Your task to perform on an android device: choose inbox layout in the gmail app Image 0: 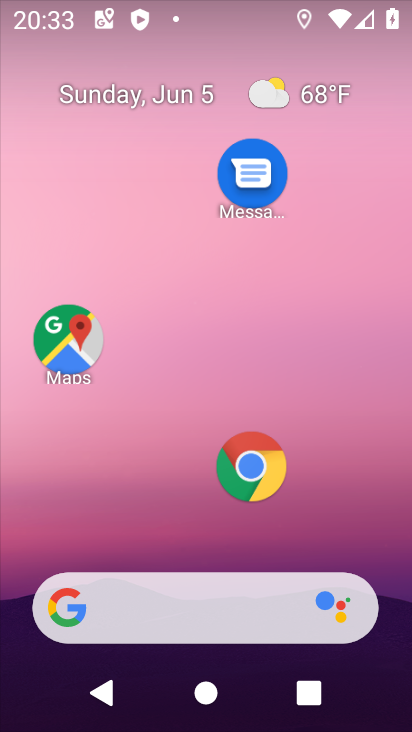
Step 0: drag from (205, 482) to (222, 329)
Your task to perform on an android device: choose inbox layout in the gmail app Image 1: 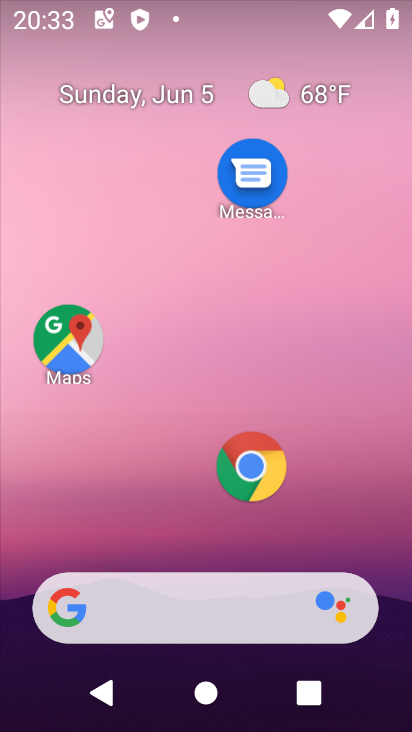
Step 1: drag from (197, 488) to (226, 88)
Your task to perform on an android device: choose inbox layout in the gmail app Image 2: 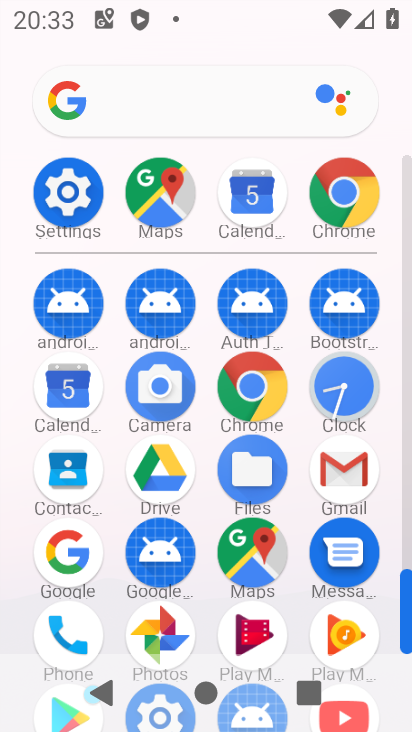
Step 2: click (348, 474)
Your task to perform on an android device: choose inbox layout in the gmail app Image 3: 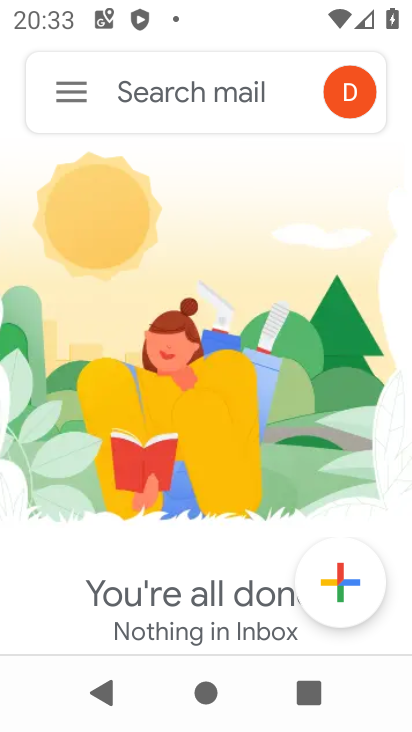
Step 3: click (70, 92)
Your task to perform on an android device: choose inbox layout in the gmail app Image 4: 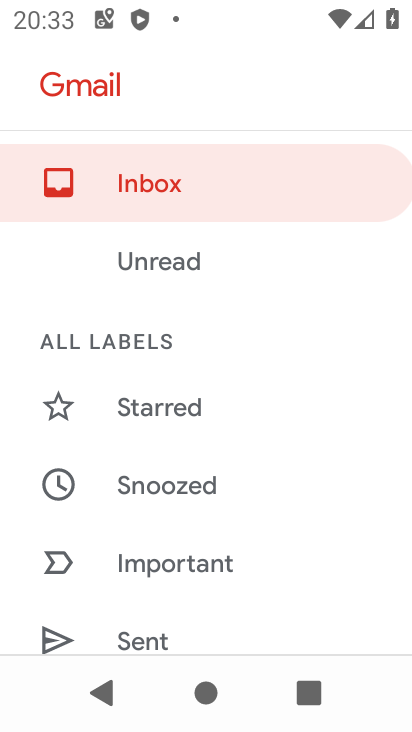
Step 4: drag from (132, 517) to (247, 27)
Your task to perform on an android device: choose inbox layout in the gmail app Image 5: 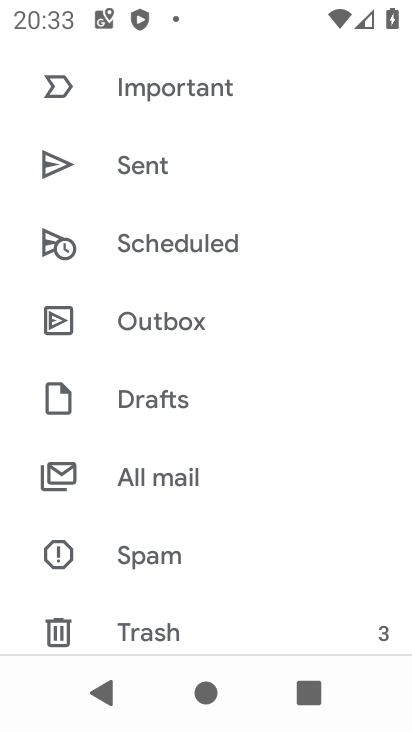
Step 5: drag from (234, 222) to (227, 711)
Your task to perform on an android device: choose inbox layout in the gmail app Image 6: 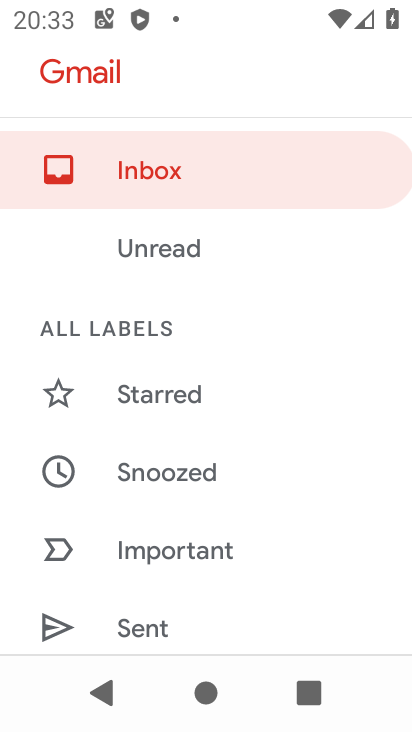
Step 6: click (193, 187)
Your task to perform on an android device: choose inbox layout in the gmail app Image 7: 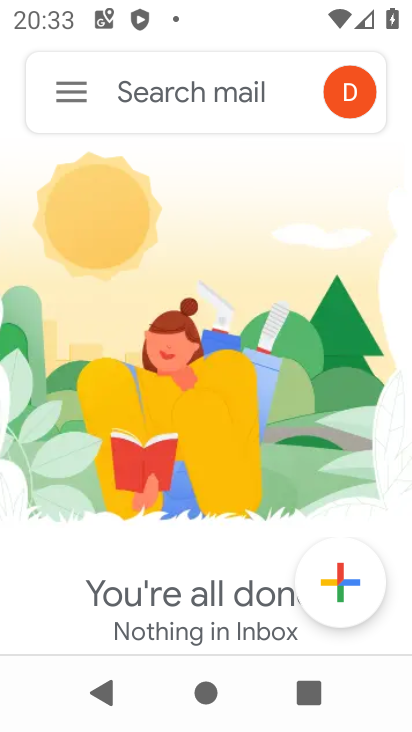
Step 7: drag from (199, 235) to (292, 719)
Your task to perform on an android device: choose inbox layout in the gmail app Image 8: 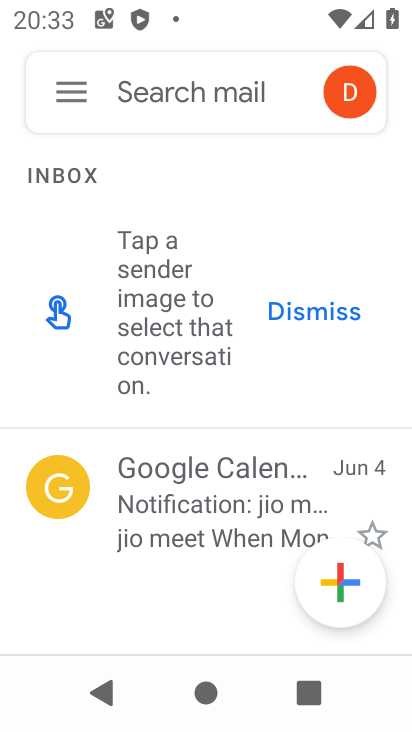
Step 8: click (63, 69)
Your task to perform on an android device: choose inbox layout in the gmail app Image 9: 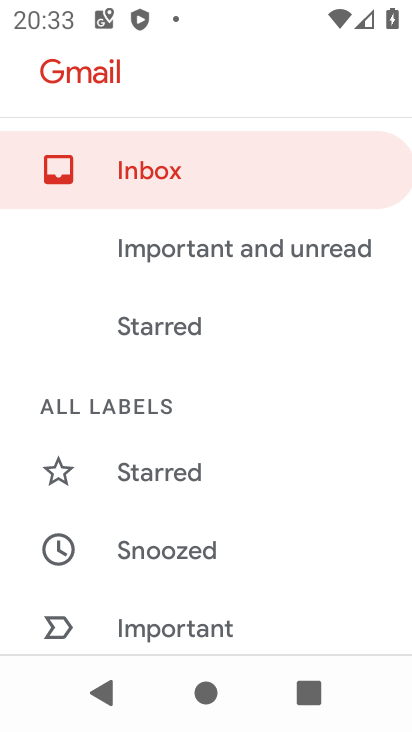
Step 9: click (169, 195)
Your task to perform on an android device: choose inbox layout in the gmail app Image 10: 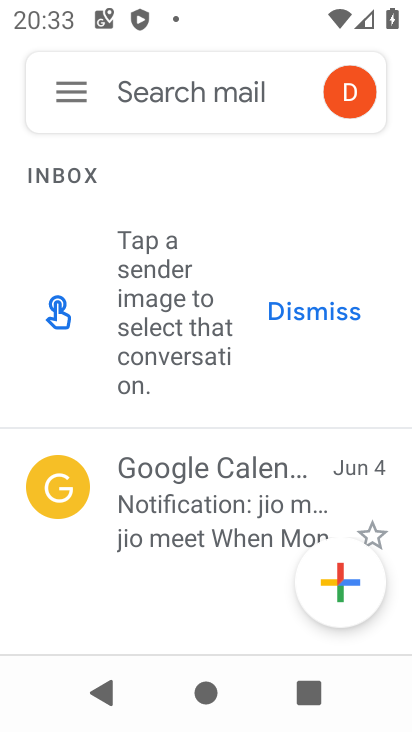
Step 10: task complete